Your task to perform on an android device: Show me productivity apps on the Play Store Image 0: 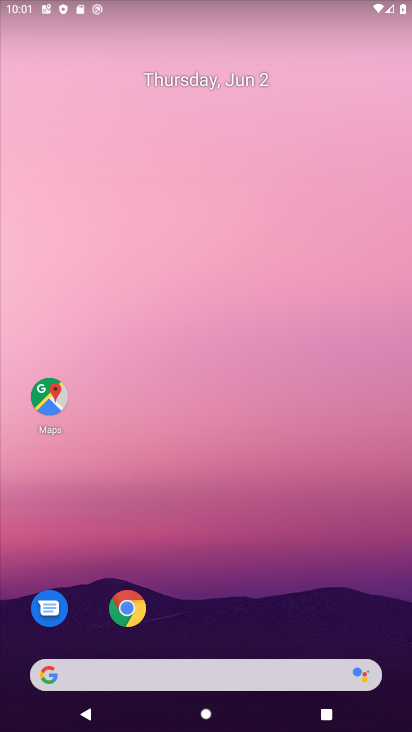
Step 0: drag from (191, 636) to (269, 188)
Your task to perform on an android device: Show me productivity apps on the Play Store Image 1: 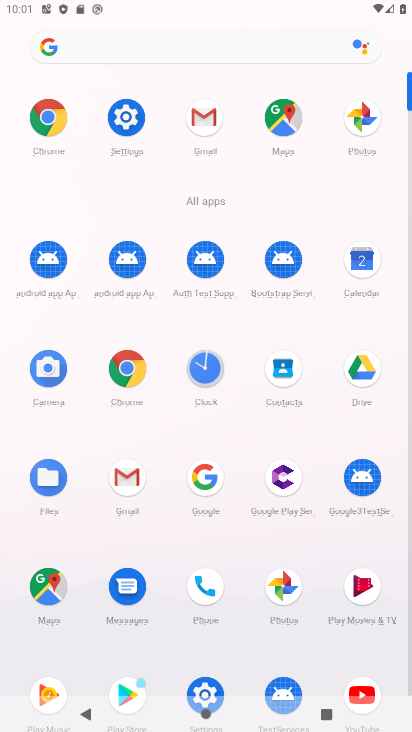
Step 1: drag from (238, 569) to (292, 297)
Your task to perform on an android device: Show me productivity apps on the Play Store Image 2: 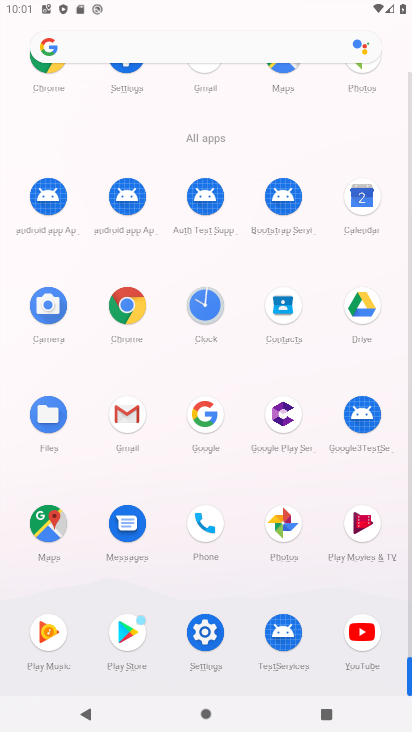
Step 2: click (132, 639)
Your task to perform on an android device: Show me productivity apps on the Play Store Image 3: 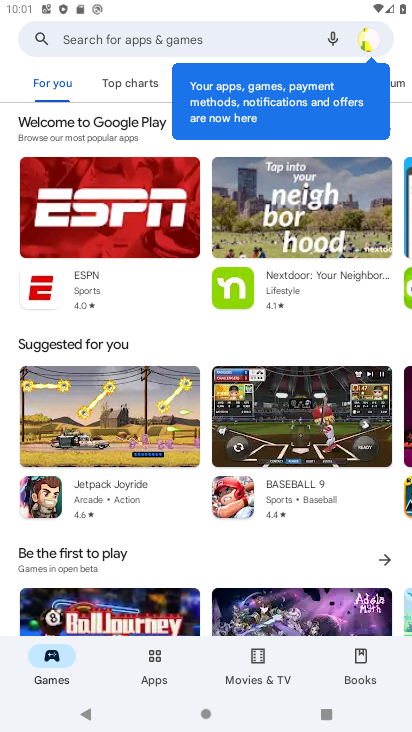
Step 3: click (155, 669)
Your task to perform on an android device: Show me productivity apps on the Play Store Image 4: 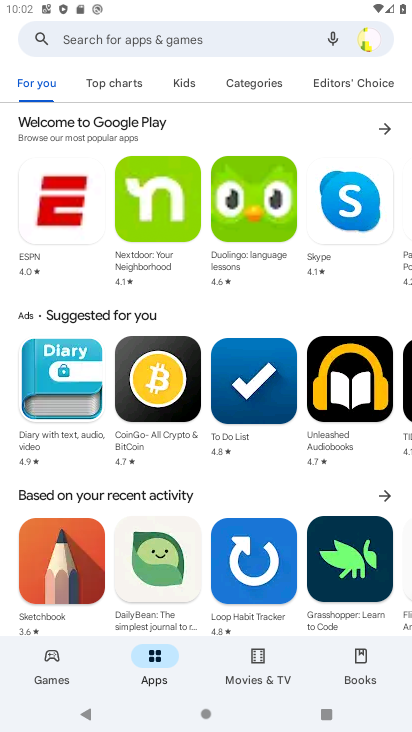
Step 4: click (266, 88)
Your task to perform on an android device: Show me productivity apps on the Play Store Image 5: 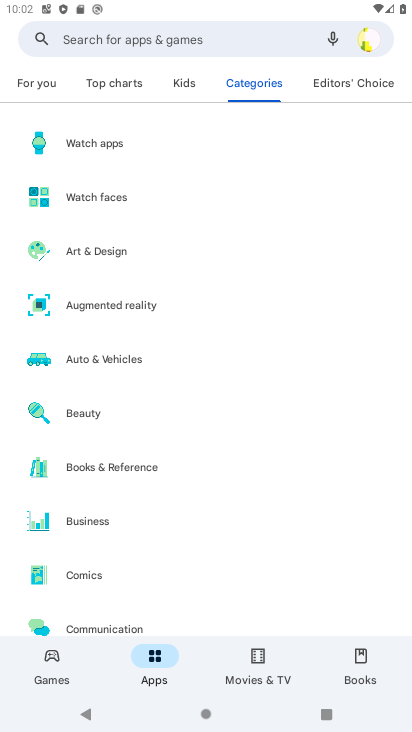
Step 5: drag from (149, 557) to (221, 166)
Your task to perform on an android device: Show me productivity apps on the Play Store Image 6: 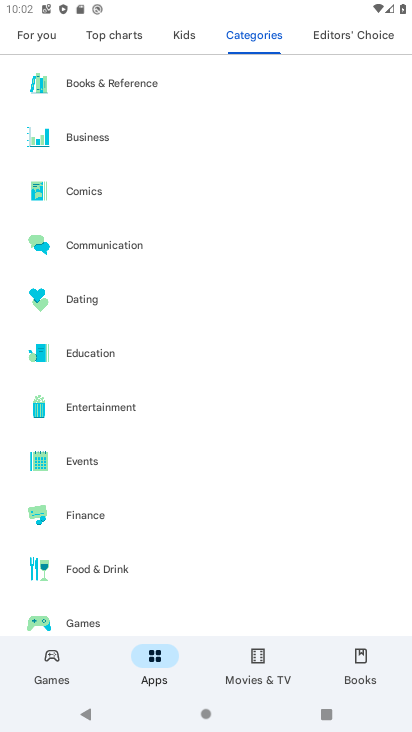
Step 6: drag from (146, 527) to (211, 241)
Your task to perform on an android device: Show me productivity apps on the Play Store Image 7: 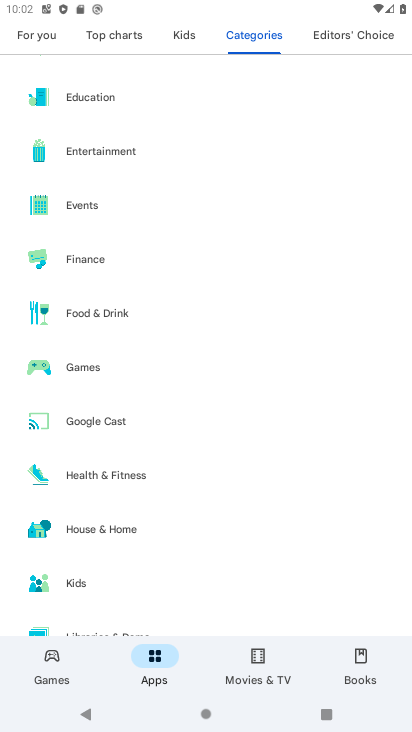
Step 7: drag from (154, 443) to (222, 121)
Your task to perform on an android device: Show me productivity apps on the Play Store Image 8: 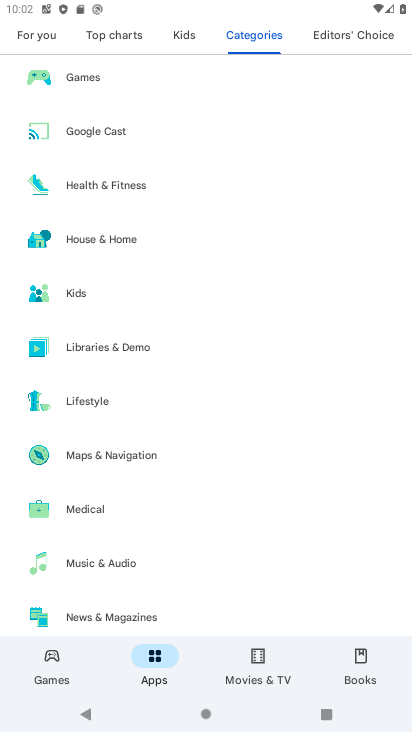
Step 8: drag from (142, 612) to (235, 241)
Your task to perform on an android device: Show me productivity apps on the Play Store Image 9: 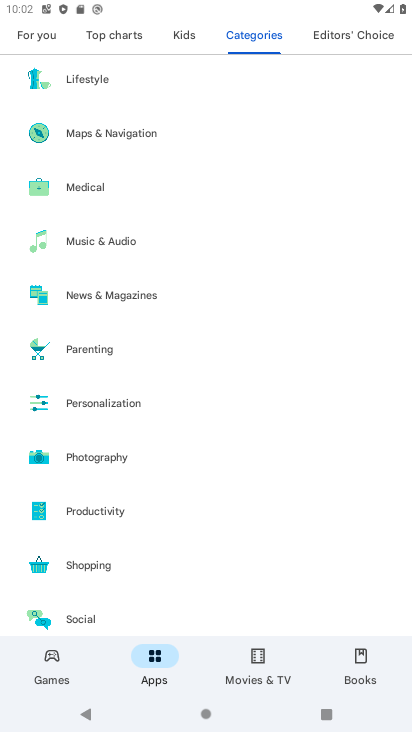
Step 9: click (141, 517)
Your task to perform on an android device: Show me productivity apps on the Play Store Image 10: 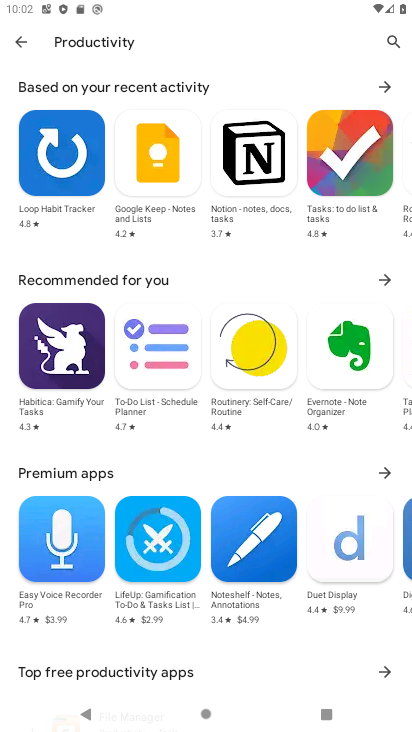
Step 10: task complete